Your task to perform on an android device: choose inbox layout in the gmail app Image 0: 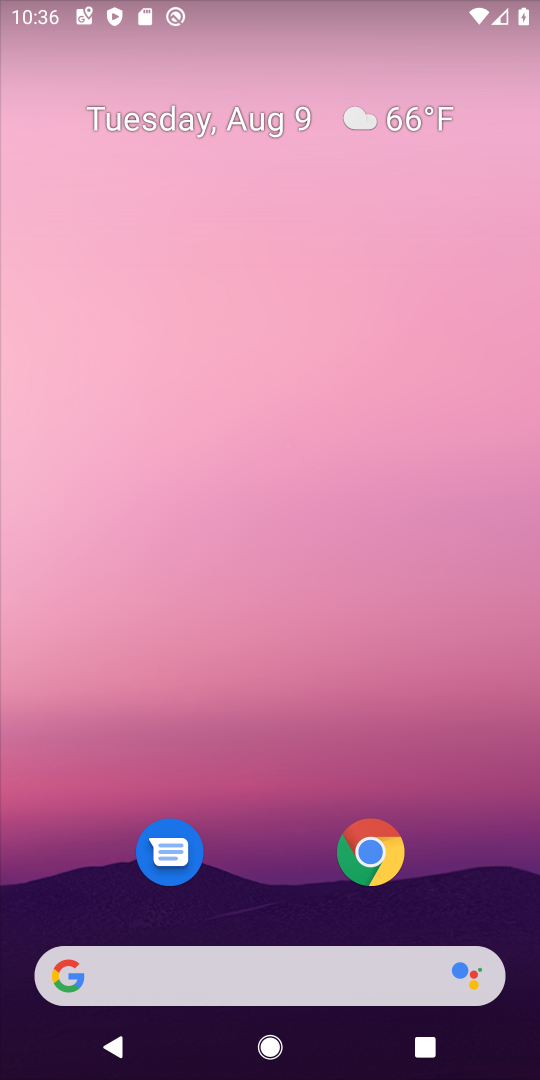
Step 0: drag from (169, 444) to (176, 371)
Your task to perform on an android device: choose inbox layout in the gmail app Image 1: 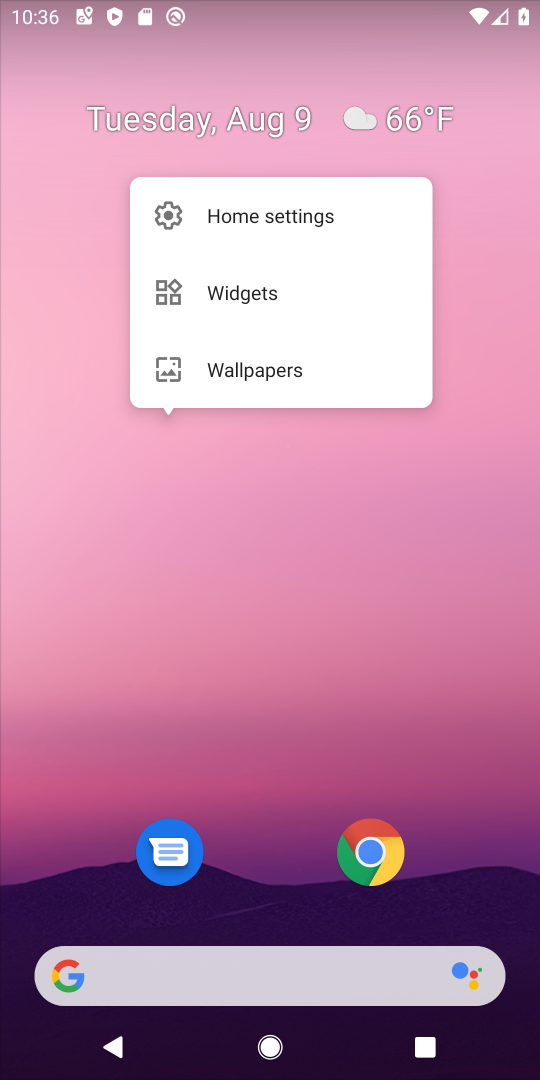
Step 1: drag from (277, 891) to (284, 69)
Your task to perform on an android device: choose inbox layout in the gmail app Image 2: 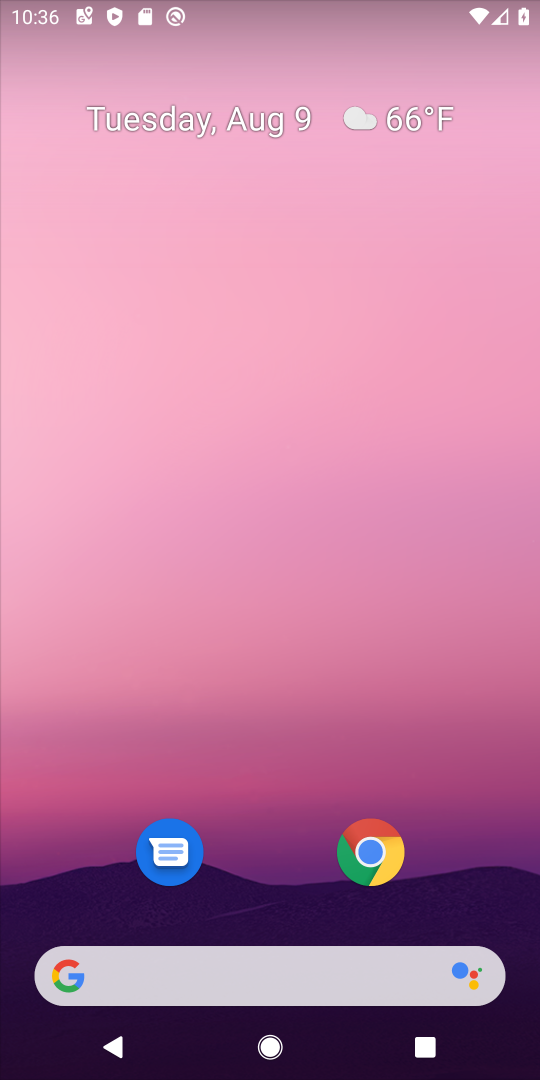
Step 2: drag from (170, 868) to (269, 262)
Your task to perform on an android device: choose inbox layout in the gmail app Image 3: 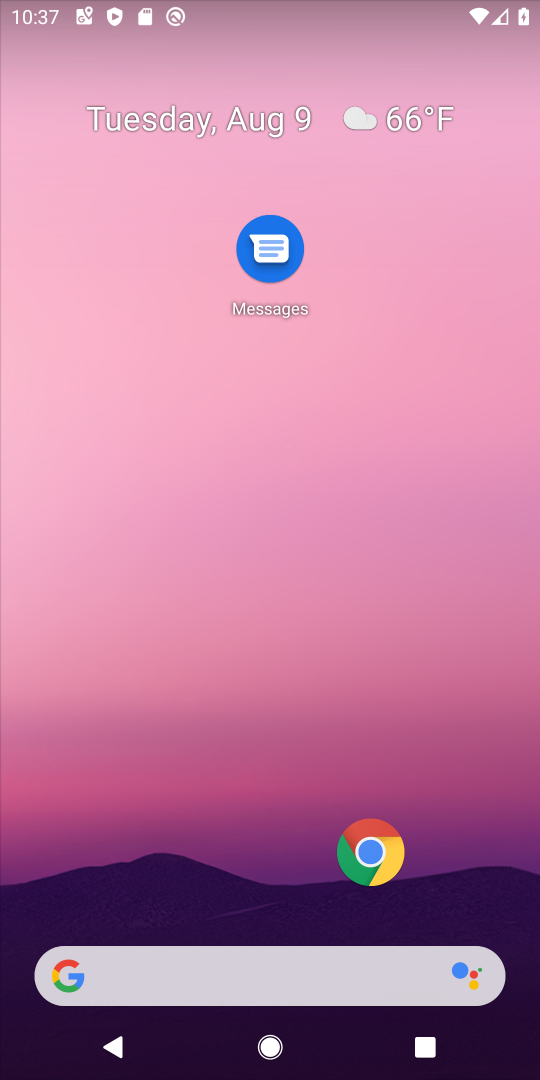
Step 3: drag from (233, 566) to (199, 265)
Your task to perform on an android device: choose inbox layout in the gmail app Image 4: 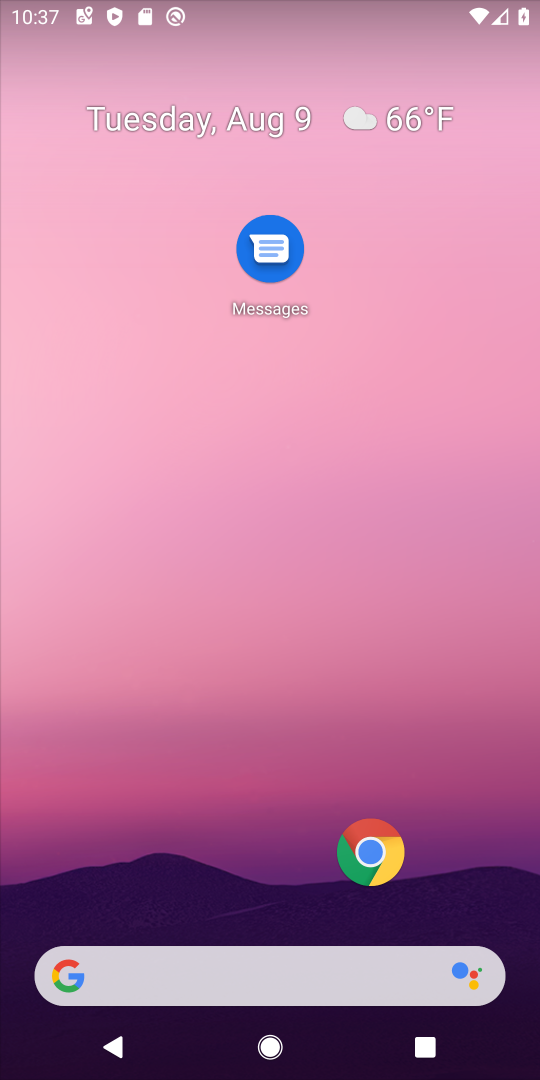
Step 4: drag from (206, 732) to (151, 23)
Your task to perform on an android device: choose inbox layout in the gmail app Image 5: 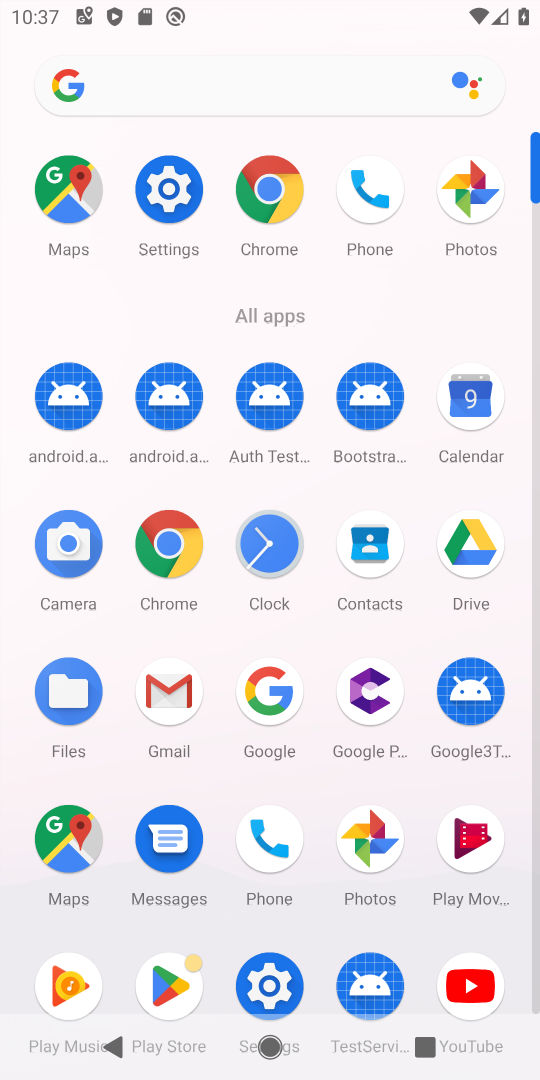
Step 5: click (190, 705)
Your task to perform on an android device: choose inbox layout in the gmail app Image 6: 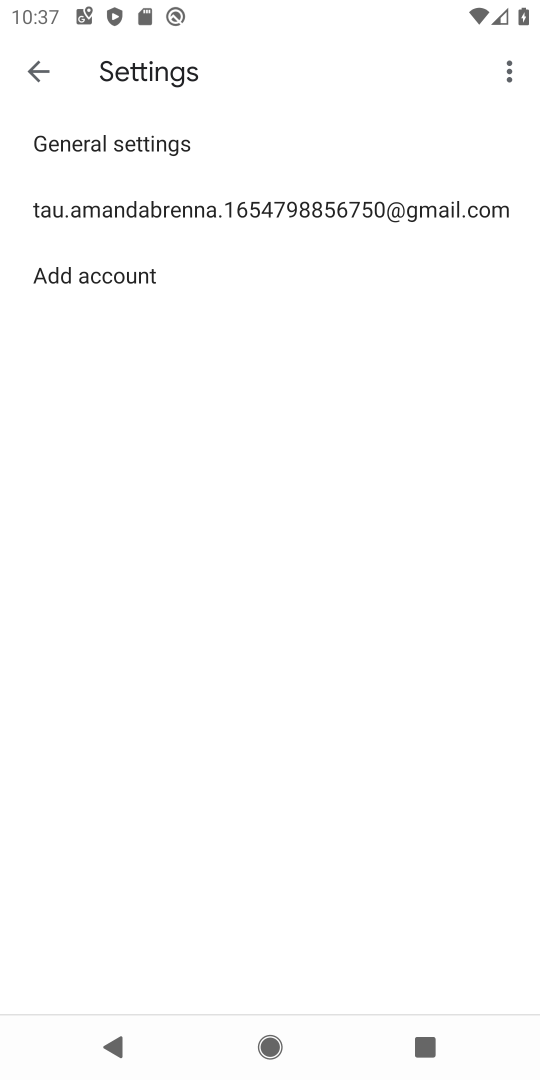
Step 6: click (234, 224)
Your task to perform on an android device: choose inbox layout in the gmail app Image 7: 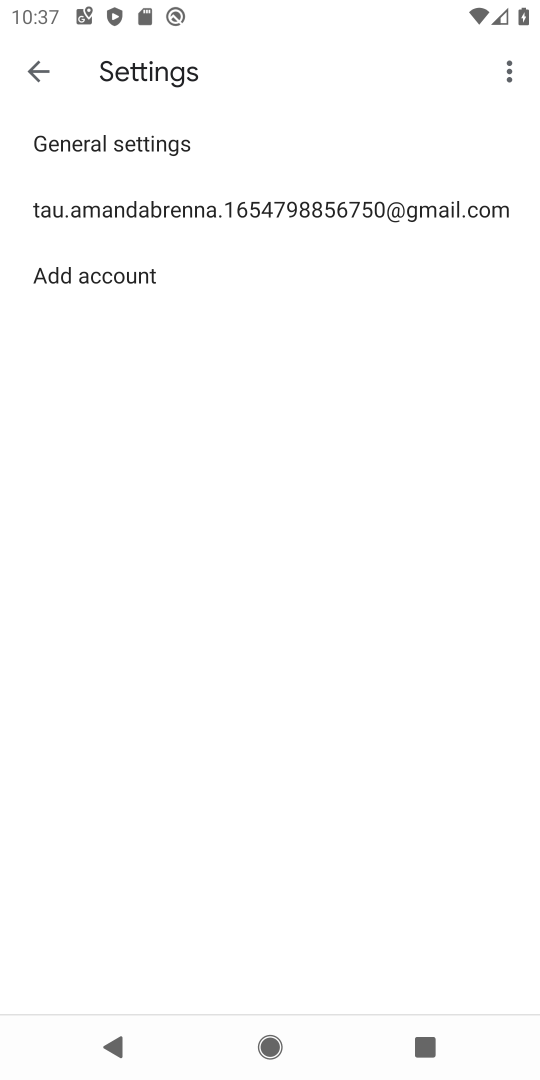
Step 7: click (234, 224)
Your task to perform on an android device: choose inbox layout in the gmail app Image 8: 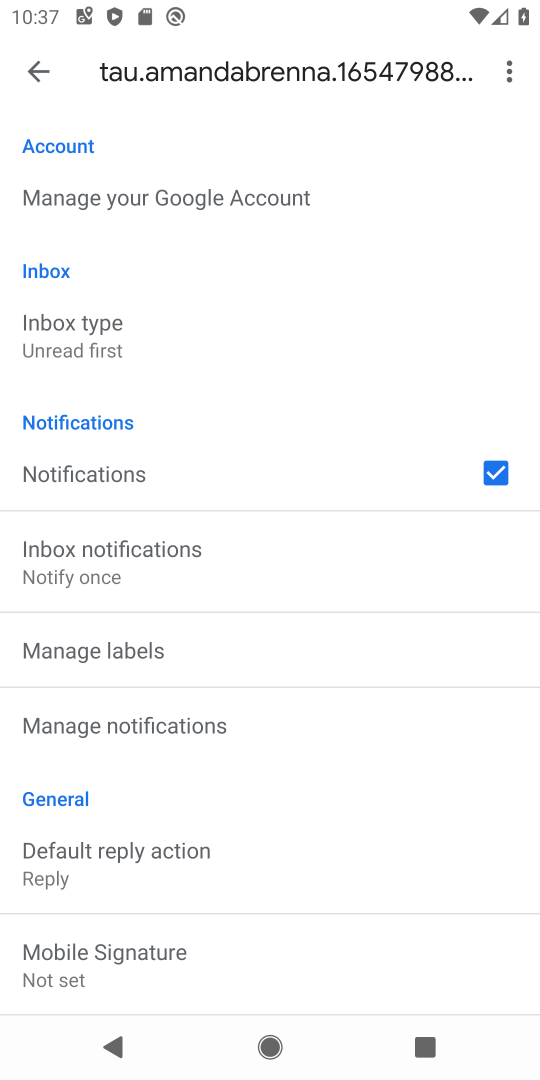
Step 8: click (158, 317)
Your task to perform on an android device: choose inbox layout in the gmail app Image 9: 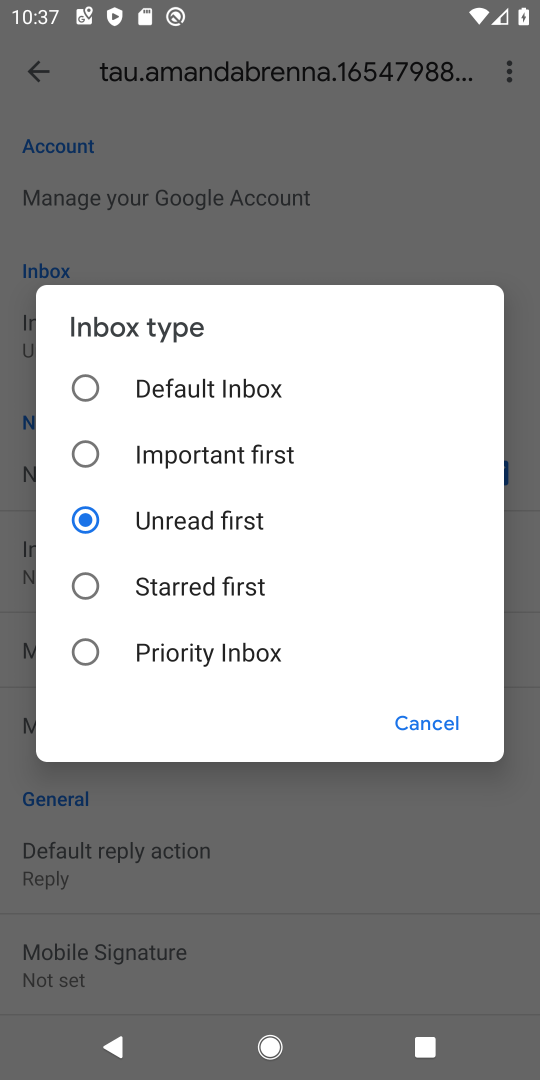
Step 9: click (191, 454)
Your task to perform on an android device: choose inbox layout in the gmail app Image 10: 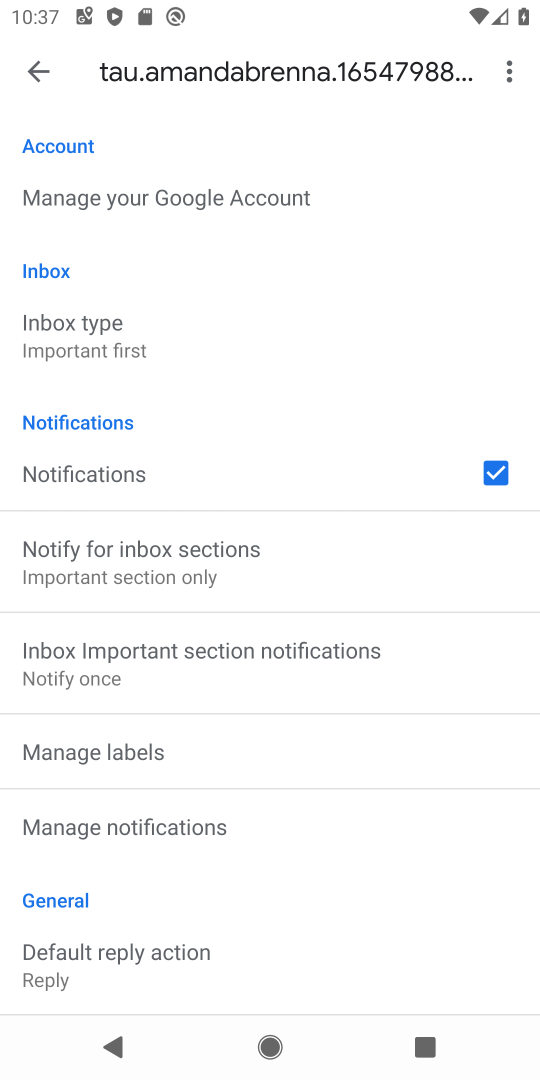
Step 10: task complete